Your task to perform on an android device: Open Youtube and go to the subscriptions tab Image 0: 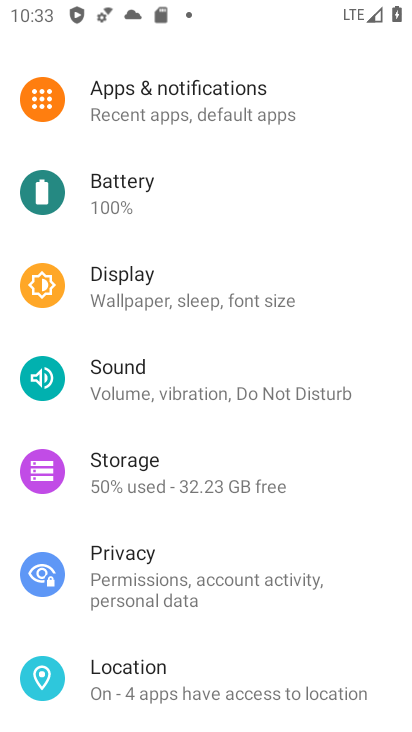
Step 0: press home button
Your task to perform on an android device: Open Youtube and go to the subscriptions tab Image 1: 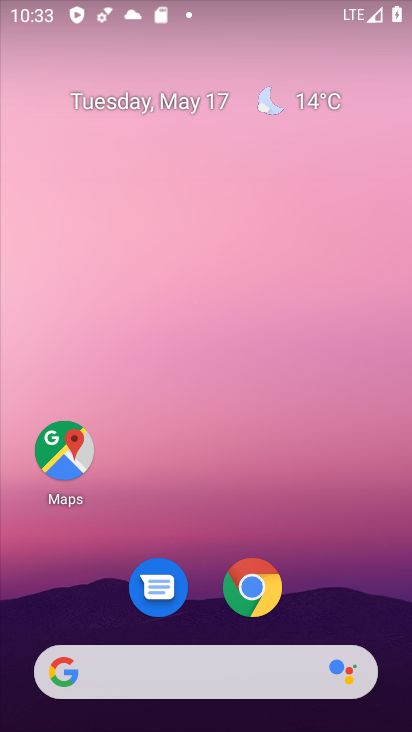
Step 1: drag from (321, 609) to (327, 473)
Your task to perform on an android device: Open Youtube and go to the subscriptions tab Image 2: 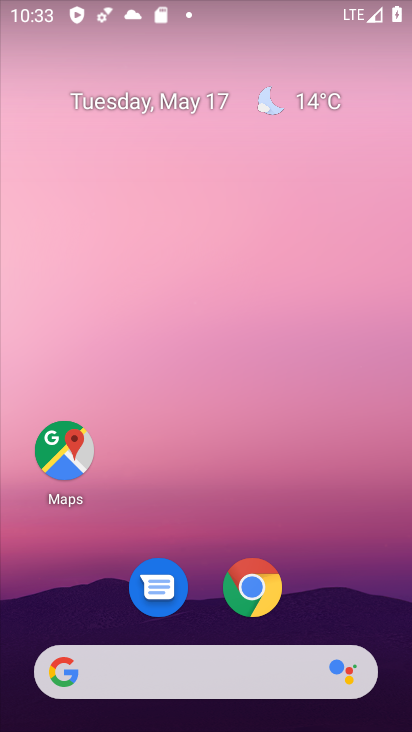
Step 2: drag from (331, 595) to (332, 356)
Your task to perform on an android device: Open Youtube and go to the subscriptions tab Image 3: 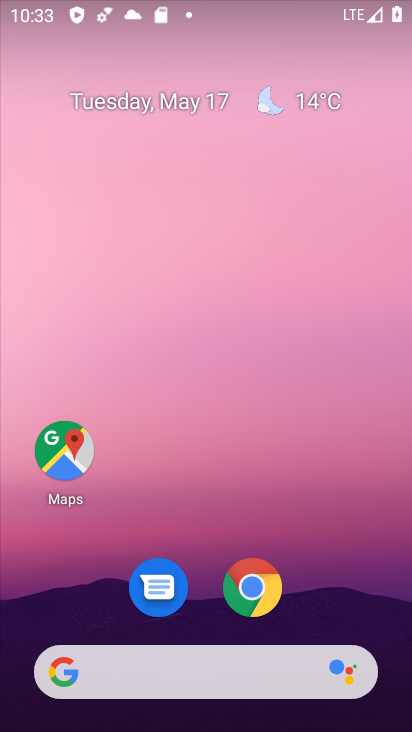
Step 3: drag from (239, 432) to (150, 26)
Your task to perform on an android device: Open Youtube and go to the subscriptions tab Image 4: 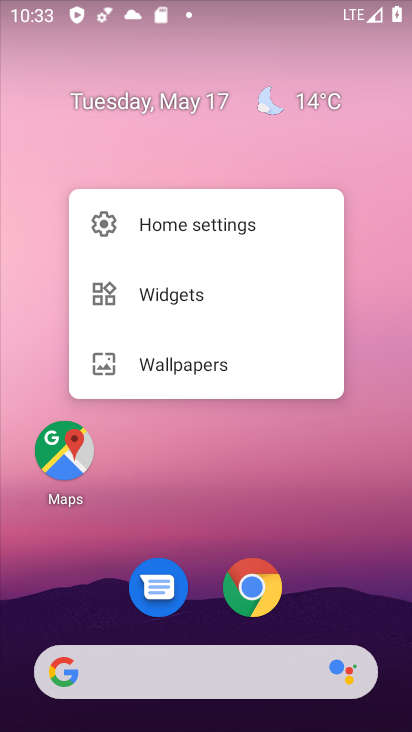
Step 4: click (243, 454)
Your task to perform on an android device: Open Youtube and go to the subscriptions tab Image 5: 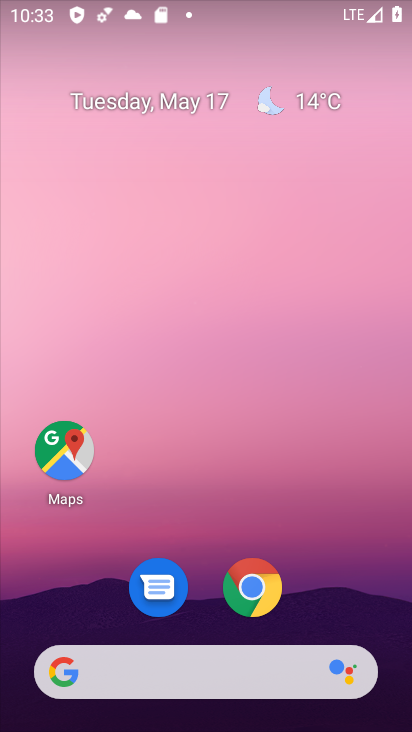
Step 5: drag from (243, 454) to (302, 72)
Your task to perform on an android device: Open Youtube and go to the subscriptions tab Image 6: 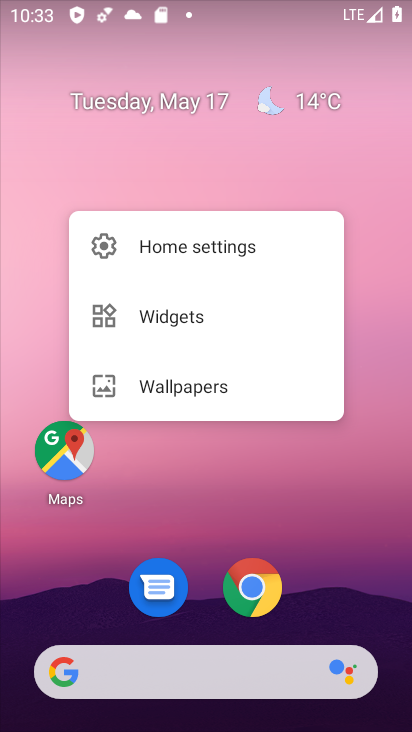
Step 6: click (286, 509)
Your task to perform on an android device: Open Youtube and go to the subscriptions tab Image 7: 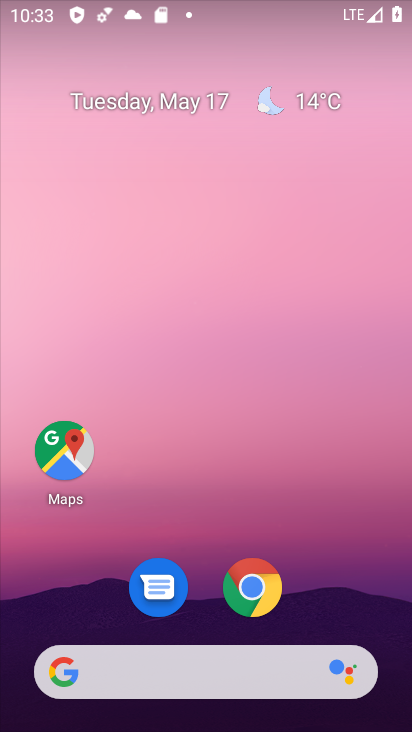
Step 7: click (286, 509)
Your task to perform on an android device: Open Youtube and go to the subscriptions tab Image 8: 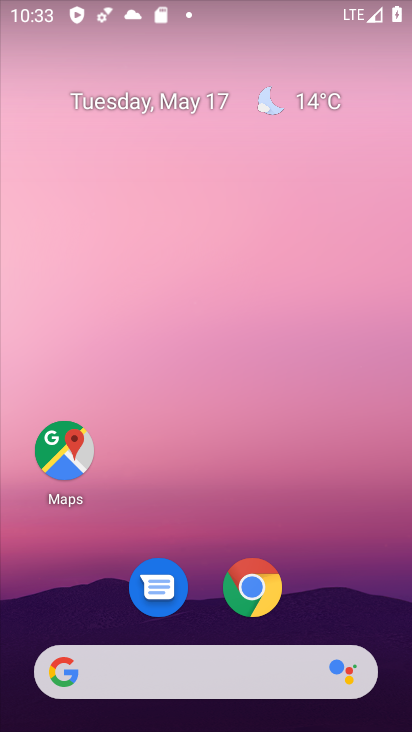
Step 8: drag from (286, 509) to (267, 162)
Your task to perform on an android device: Open Youtube and go to the subscriptions tab Image 9: 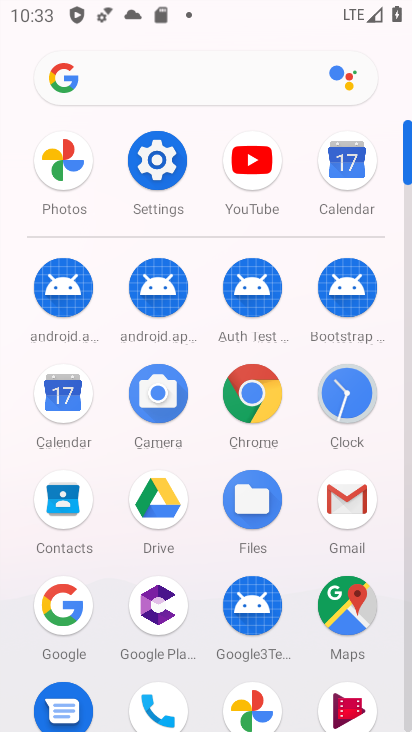
Step 9: click (250, 167)
Your task to perform on an android device: Open Youtube and go to the subscriptions tab Image 10: 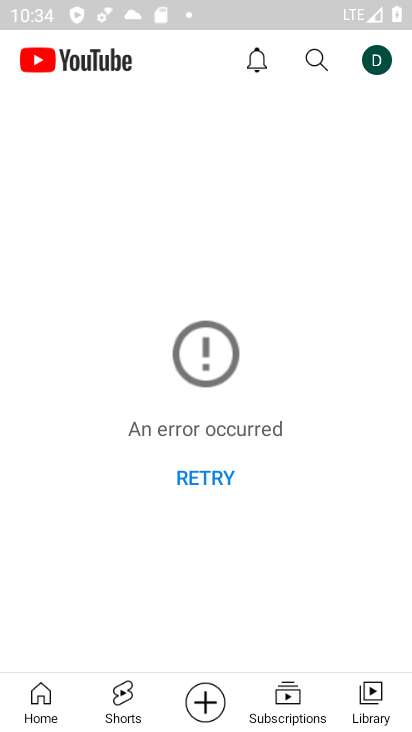
Step 10: click (292, 694)
Your task to perform on an android device: Open Youtube and go to the subscriptions tab Image 11: 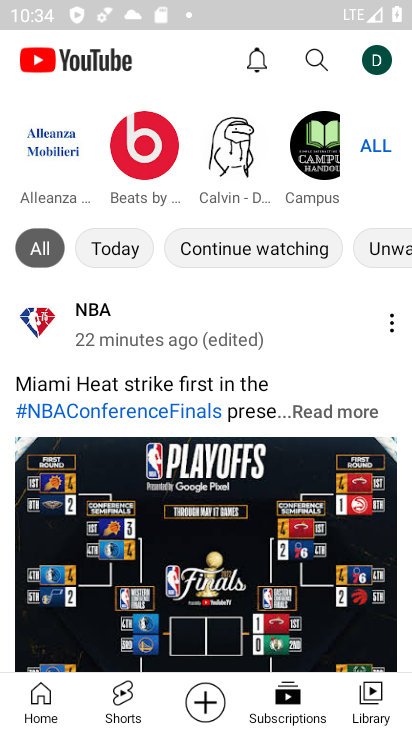
Step 11: task complete